Your task to perform on an android device: find photos in the google photos app Image 0: 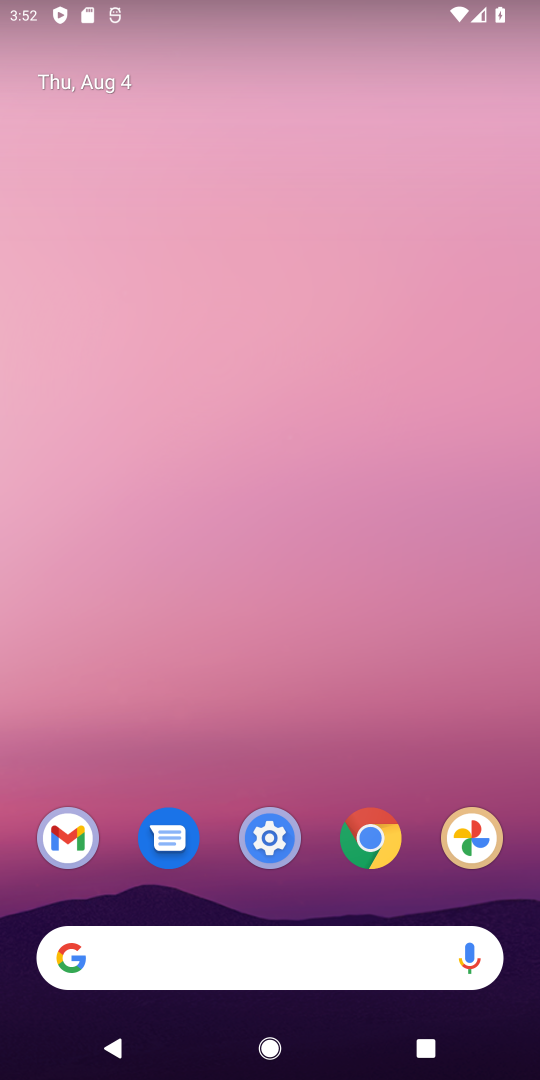
Step 0: drag from (301, 759) to (365, 234)
Your task to perform on an android device: find photos in the google photos app Image 1: 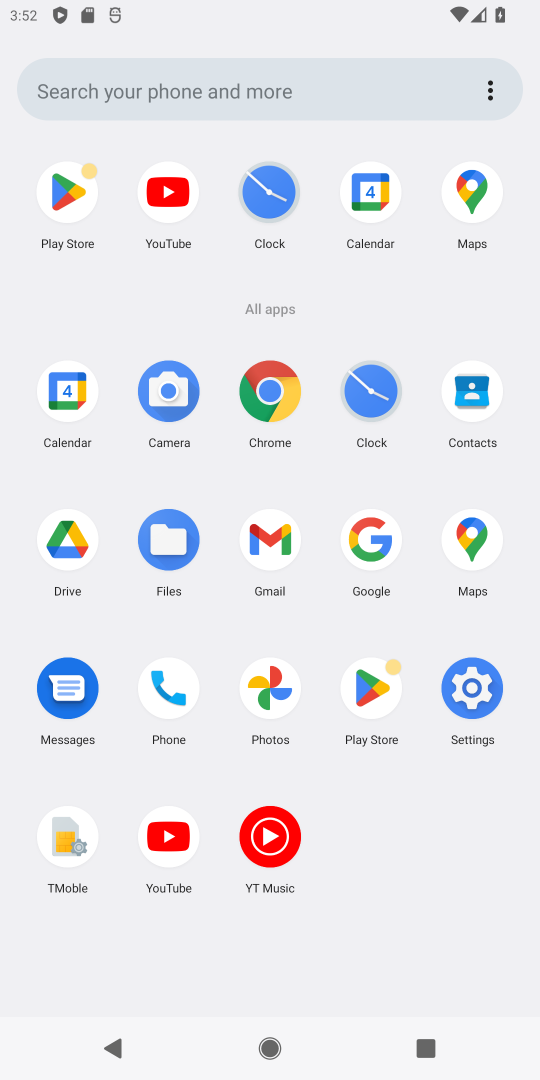
Step 1: click (268, 697)
Your task to perform on an android device: find photos in the google photos app Image 2: 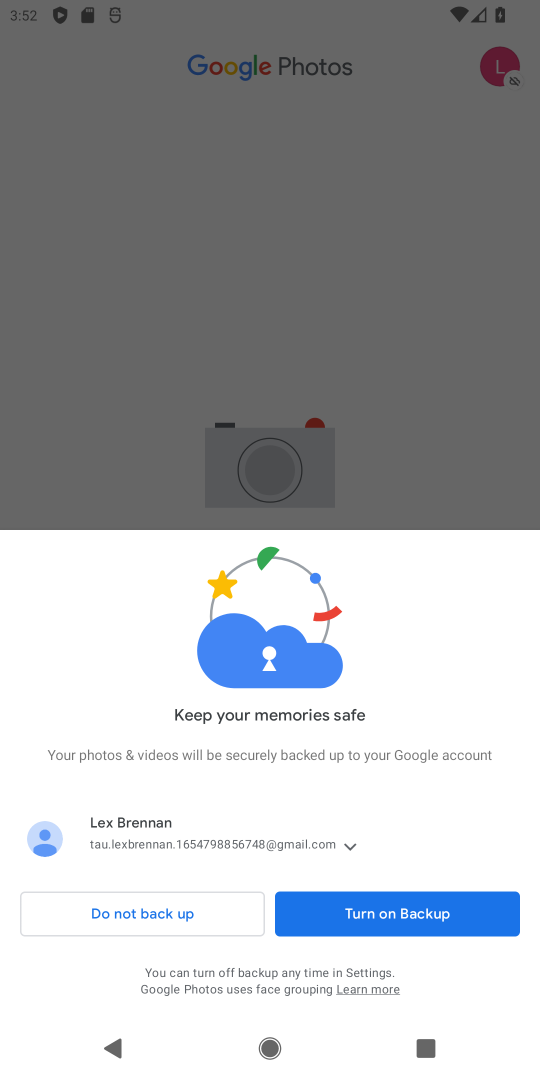
Step 2: click (183, 913)
Your task to perform on an android device: find photos in the google photos app Image 3: 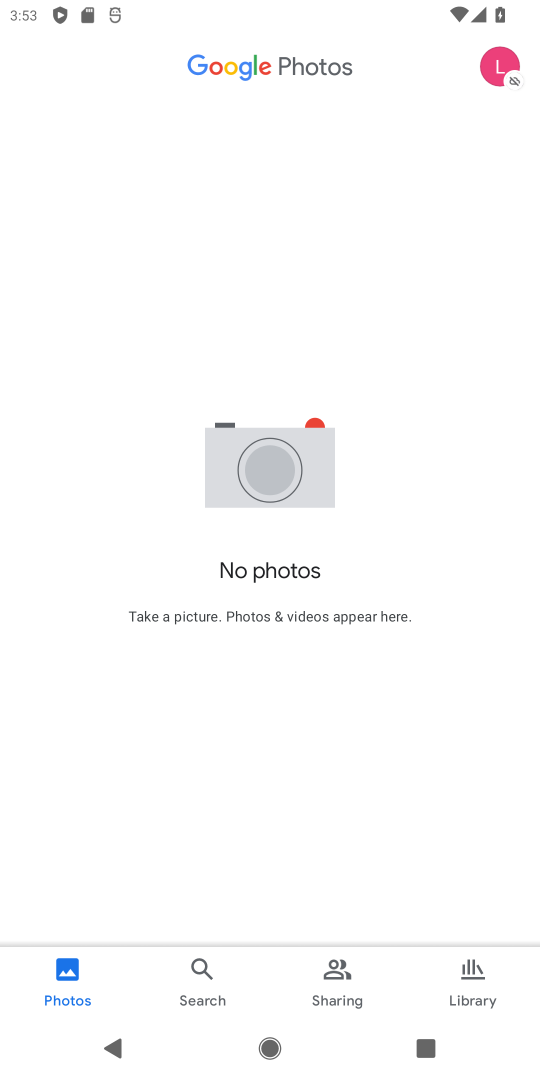
Step 3: task complete